Your task to perform on an android device: see sites visited before in the chrome app Image 0: 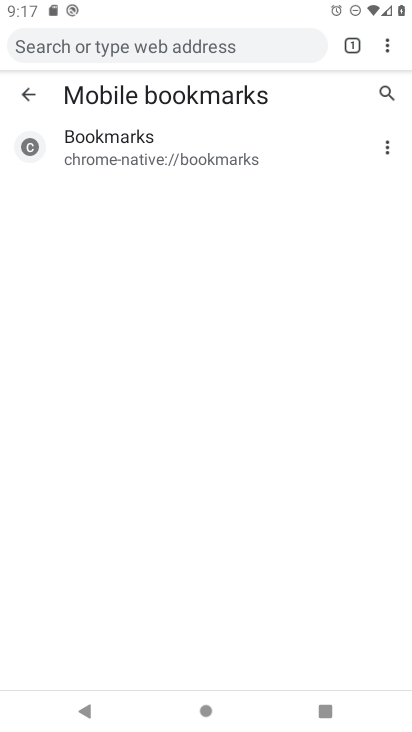
Step 0: press home button
Your task to perform on an android device: see sites visited before in the chrome app Image 1: 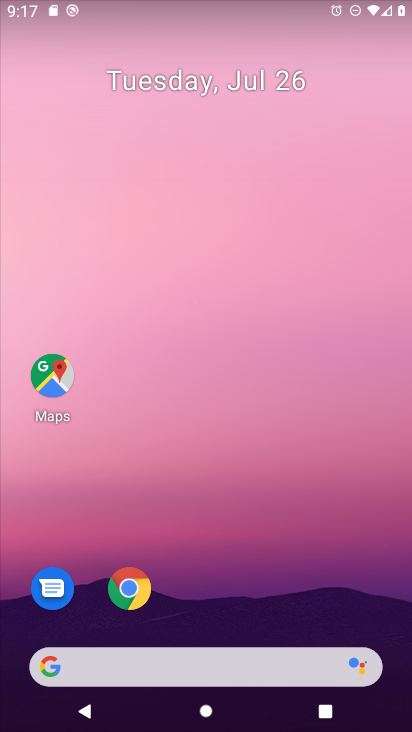
Step 1: drag from (228, 660) to (249, 198)
Your task to perform on an android device: see sites visited before in the chrome app Image 2: 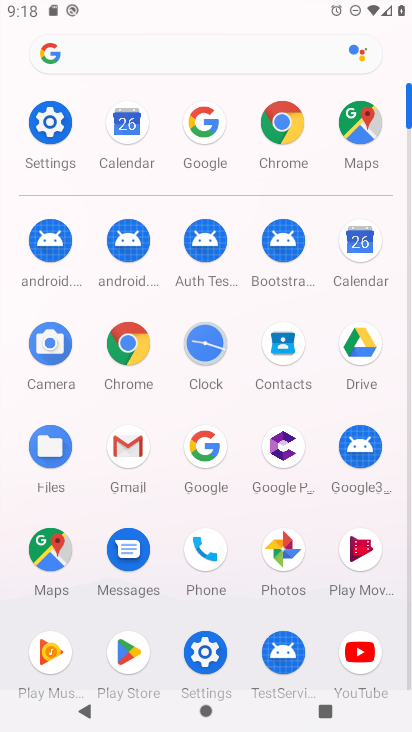
Step 2: click (133, 373)
Your task to perform on an android device: see sites visited before in the chrome app Image 3: 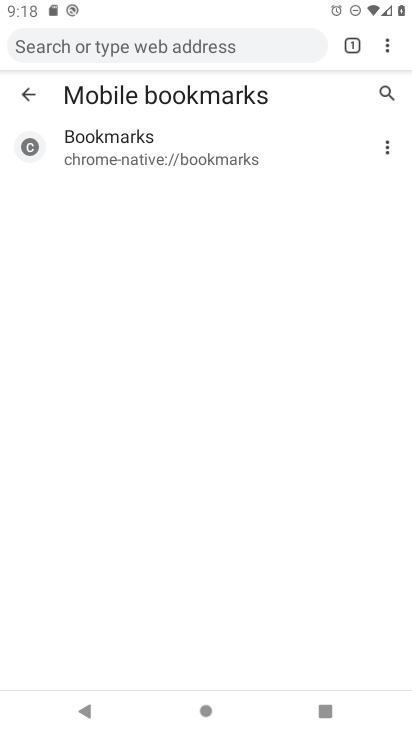
Step 3: click (24, 96)
Your task to perform on an android device: see sites visited before in the chrome app Image 4: 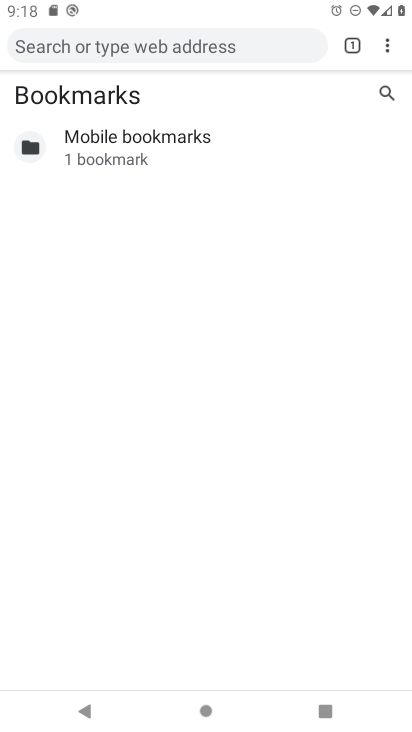
Step 4: click (388, 46)
Your task to perform on an android device: see sites visited before in the chrome app Image 5: 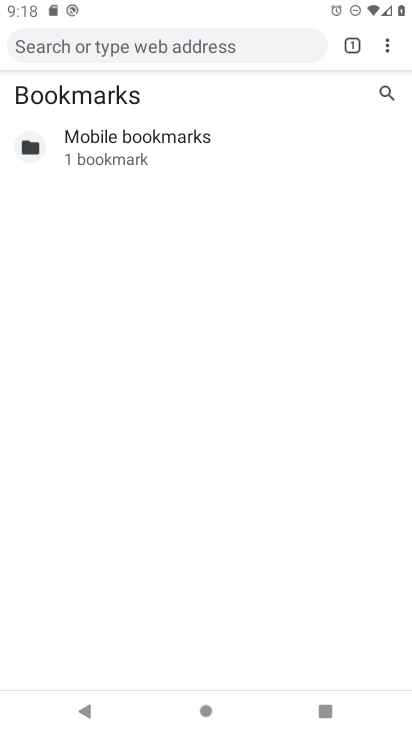
Step 5: click (383, 54)
Your task to perform on an android device: see sites visited before in the chrome app Image 6: 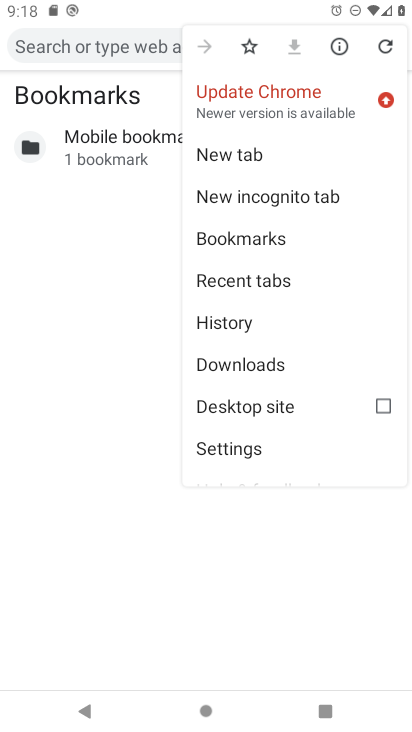
Step 6: click (225, 325)
Your task to perform on an android device: see sites visited before in the chrome app Image 7: 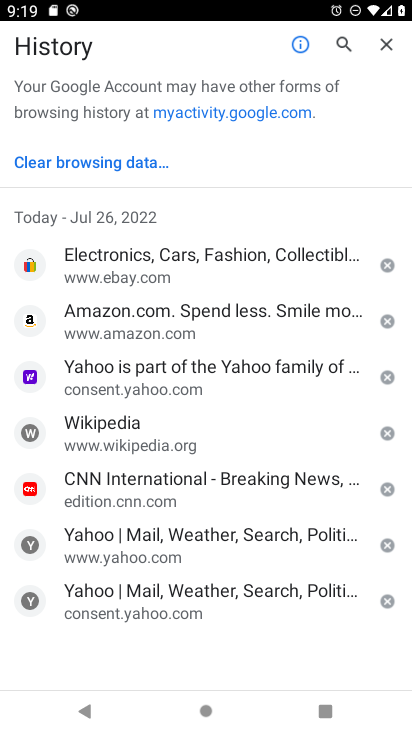
Step 7: task complete